Your task to perform on an android device: Open the phone app and click the voicemail tab. Image 0: 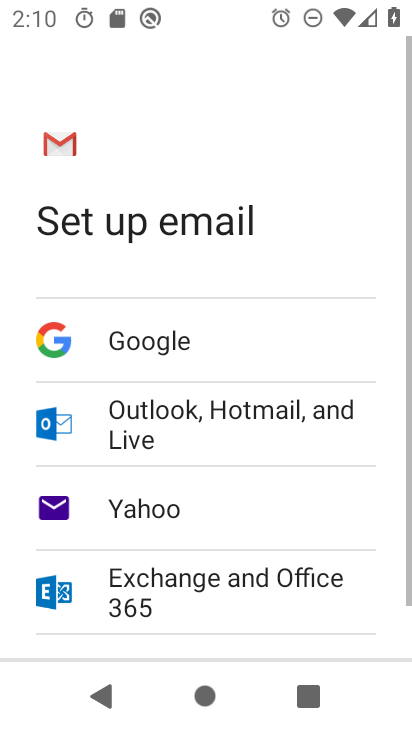
Step 0: press back button
Your task to perform on an android device: Open the phone app and click the voicemail tab. Image 1: 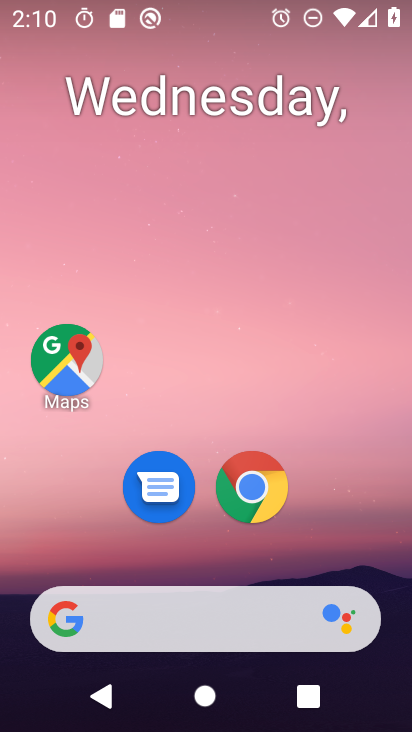
Step 1: drag from (228, 588) to (283, 38)
Your task to perform on an android device: Open the phone app and click the voicemail tab. Image 2: 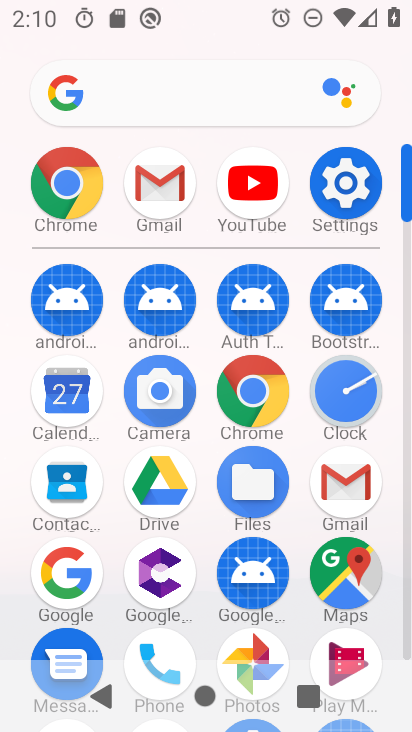
Step 2: click (154, 644)
Your task to perform on an android device: Open the phone app and click the voicemail tab. Image 3: 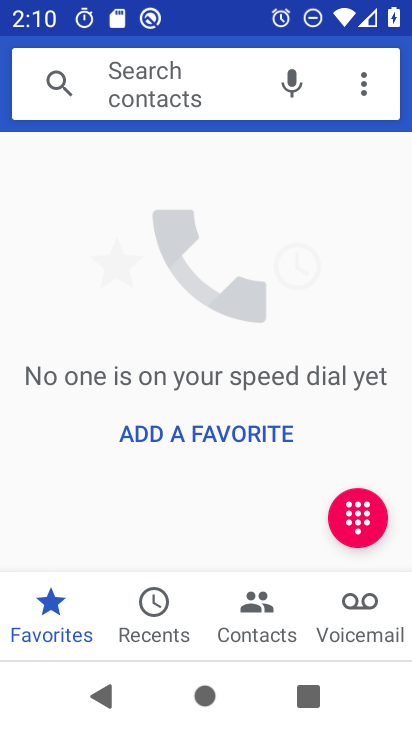
Step 3: click (358, 609)
Your task to perform on an android device: Open the phone app and click the voicemail tab. Image 4: 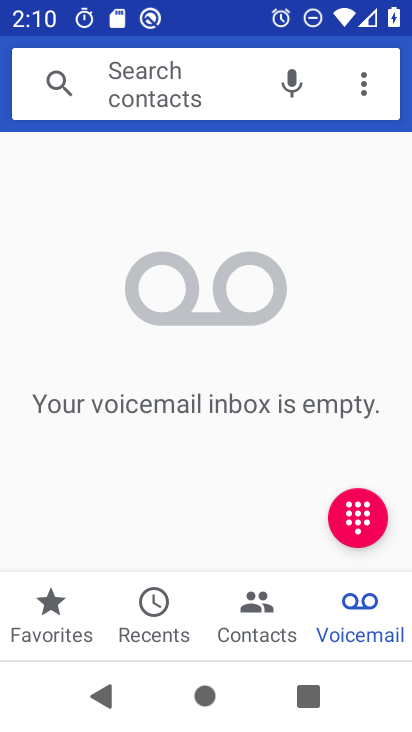
Step 4: task complete